Your task to perform on an android device: Open Google Maps Image 0: 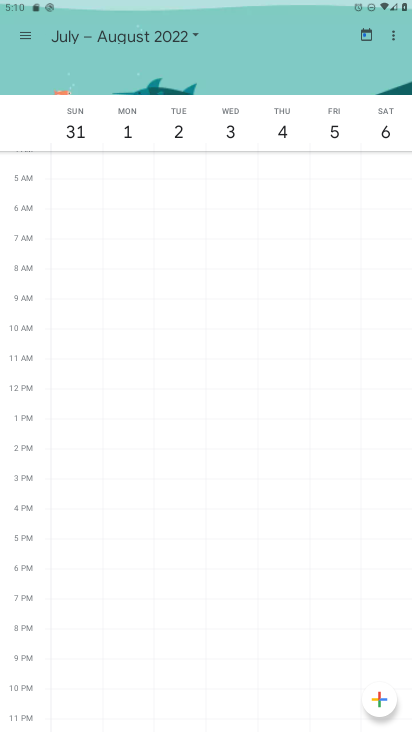
Step 0: press home button
Your task to perform on an android device: Open Google Maps Image 1: 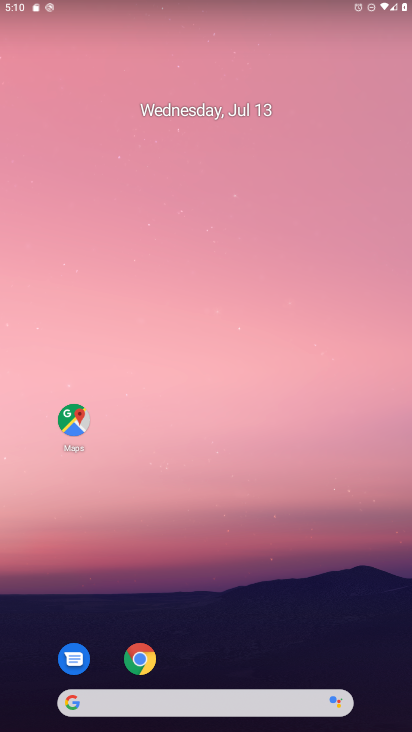
Step 1: click (79, 425)
Your task to perform on an android device: Open Google Maps Image 2: 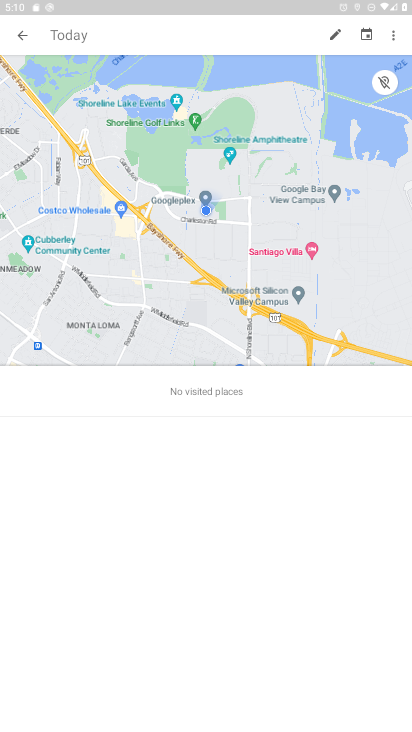
Step 2: task complete